Your task to perform on an android device: What's the price of the Galaxy phone on eBay? Image 0: 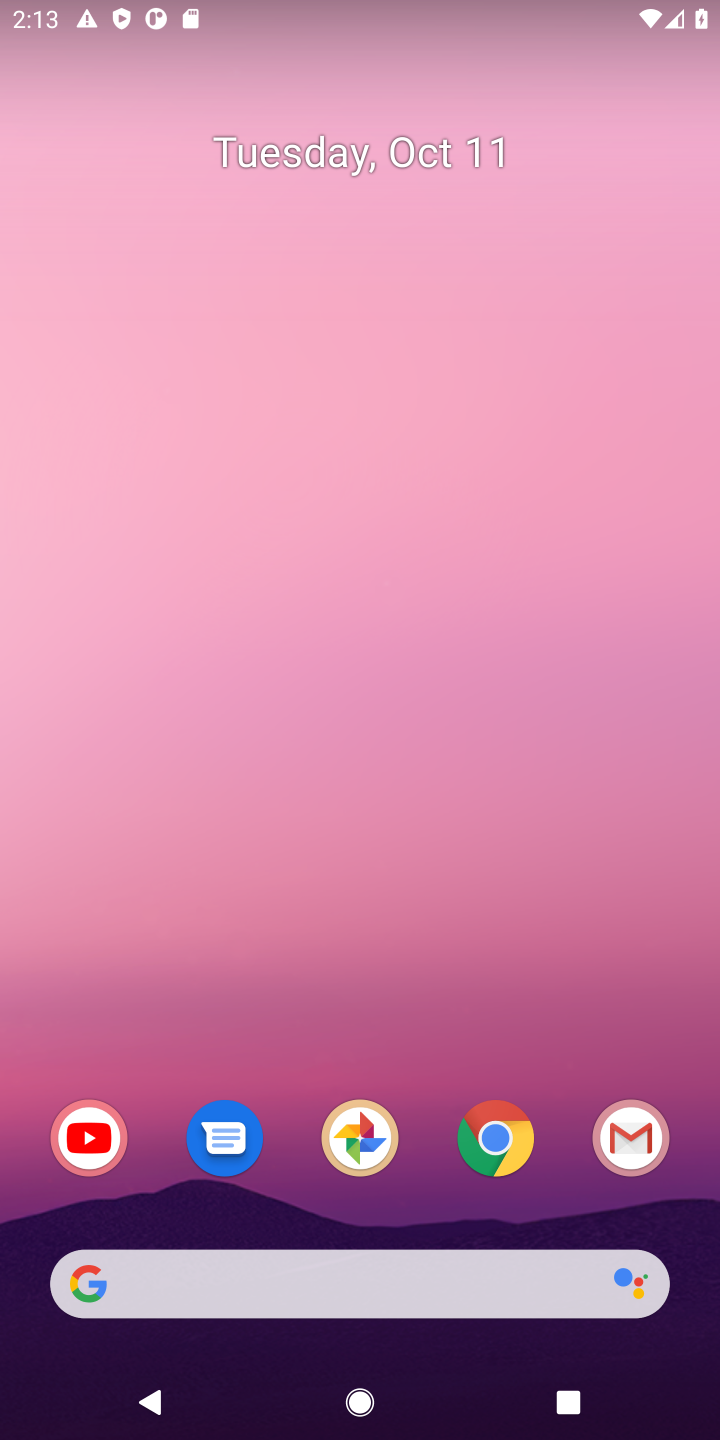
Step 0: click (496, 1119)
Your task to perform on an android device: What's the price of the Galaxy phone on eBay? Image 1: 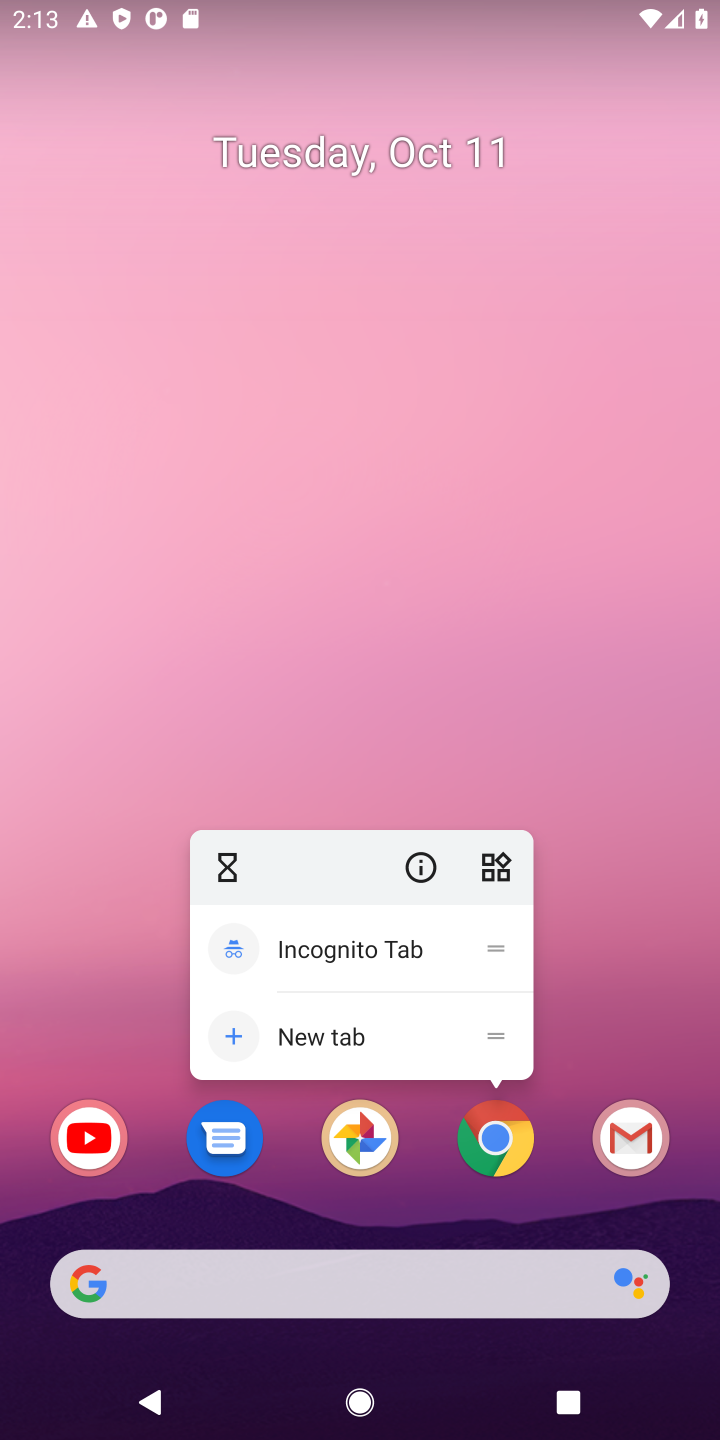
Step 1: click (493, 1129)
Your task to perform on an android device: What's the price of the Galaxy phone on eBay? Image 2: 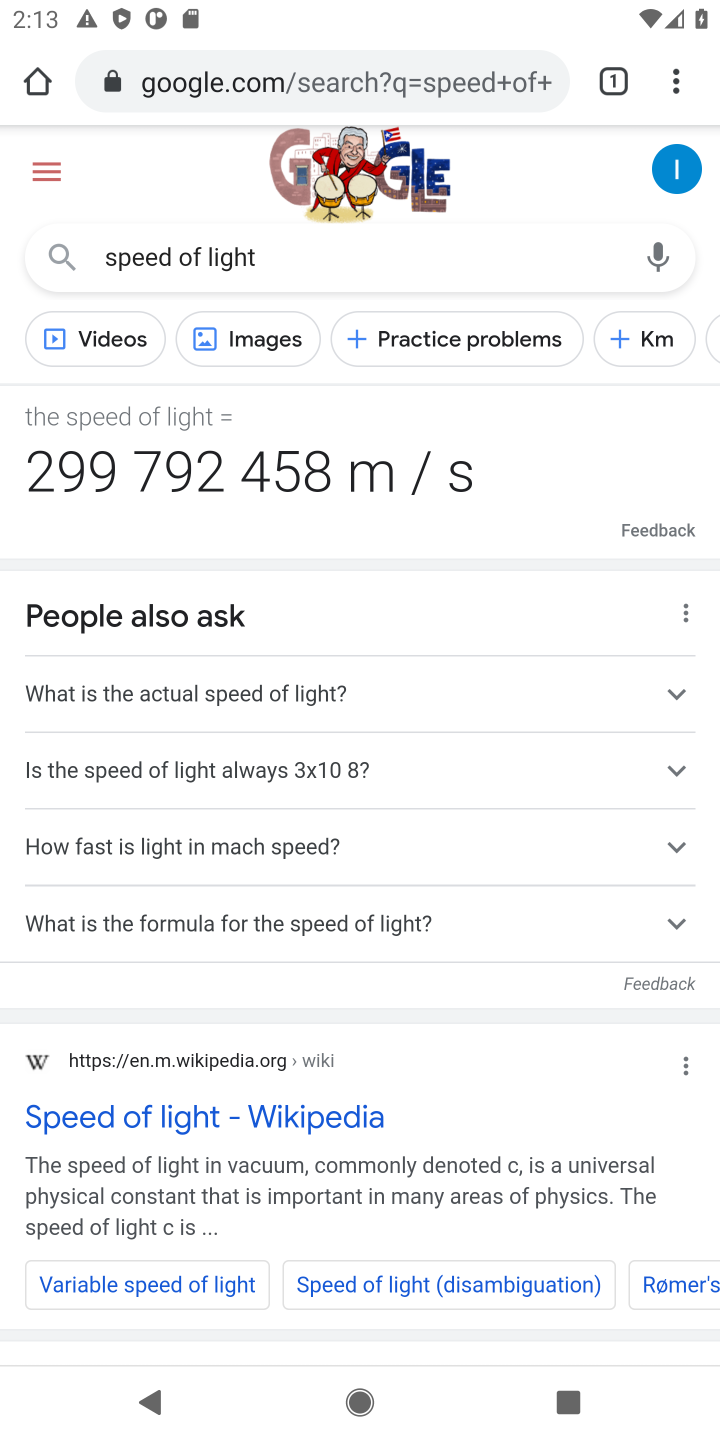
Step 2: click (370, 72)
Your task to perform on an android device: What's the price of the Galaxy phone on eBay? Image 3: 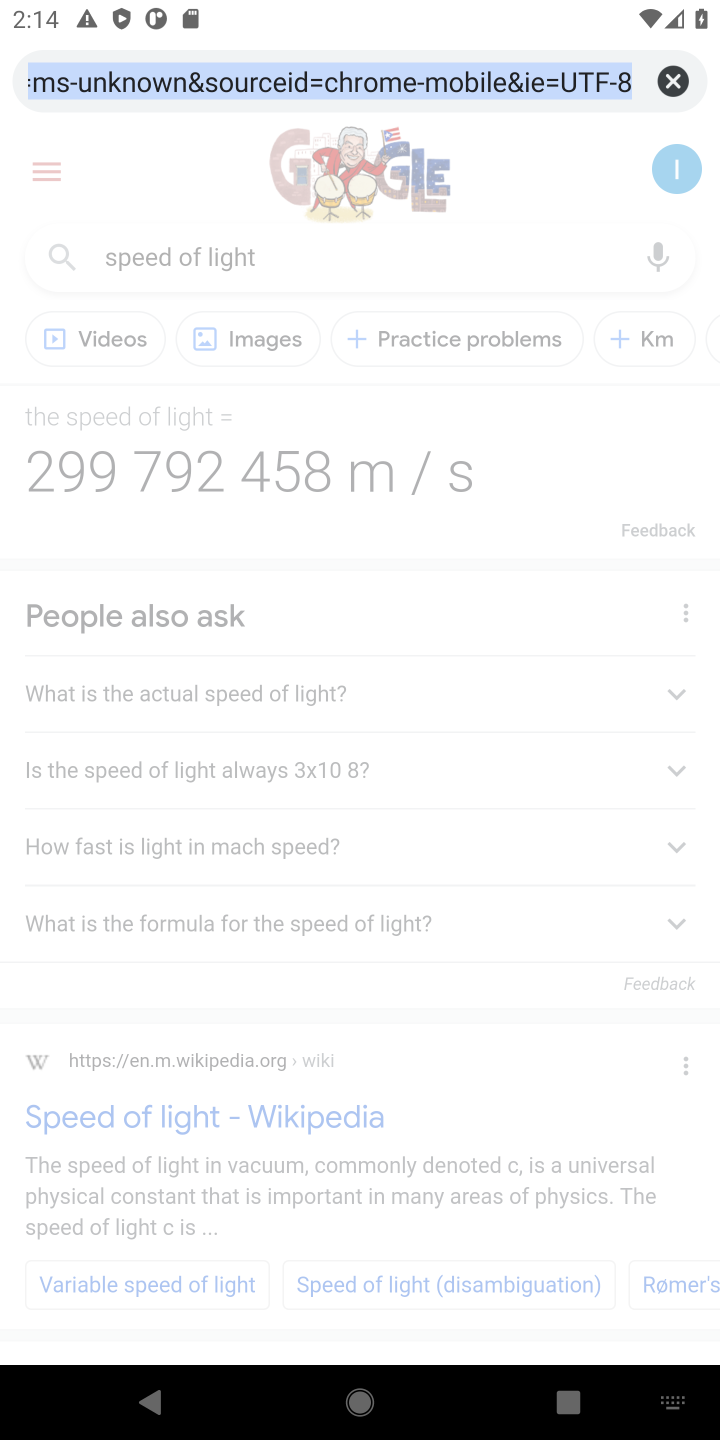
Step 3: type "Galaxy phone on eBay"
Your task to perform on an android device: What's the price of the Galaxy phone on eBay? Image 4: 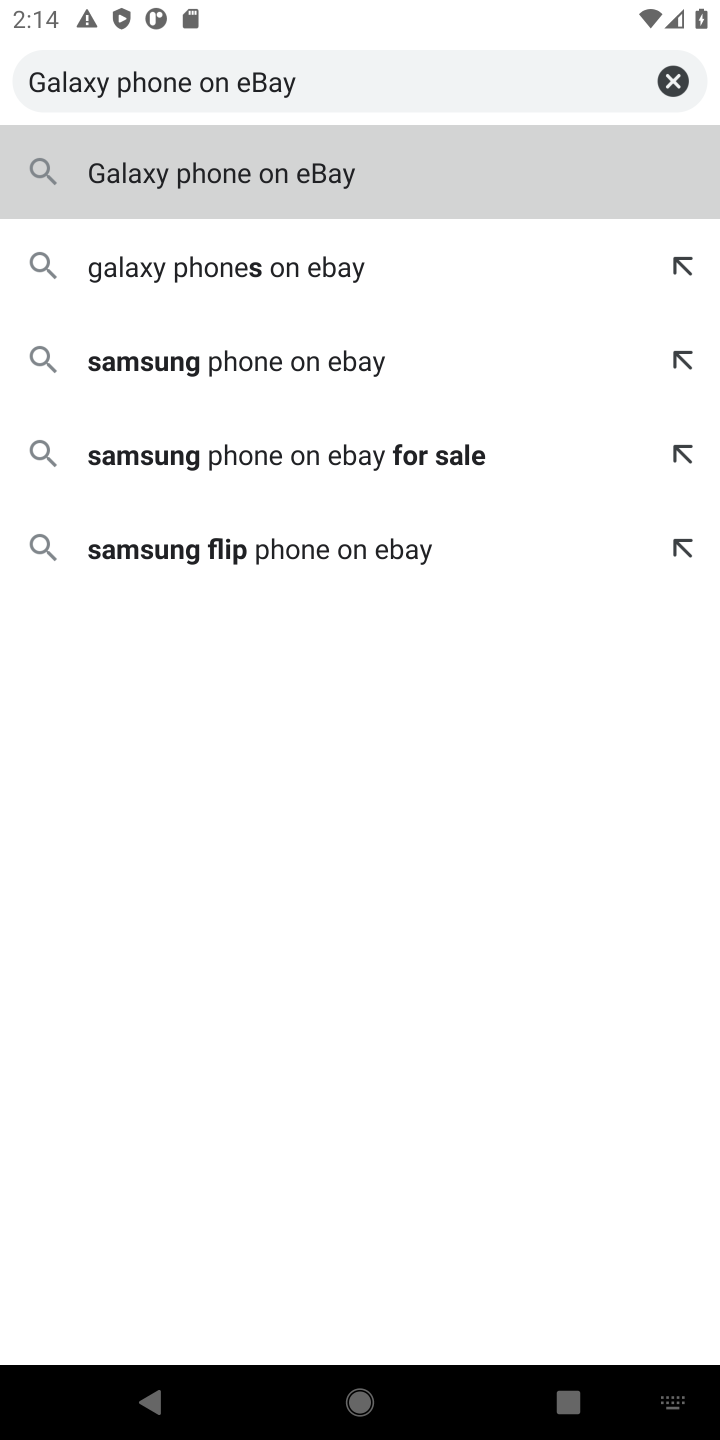
Step 4: click (347, 173)
Your task to perform on an android device: What's the price of the Galaxy phone on eBay? Image 5: 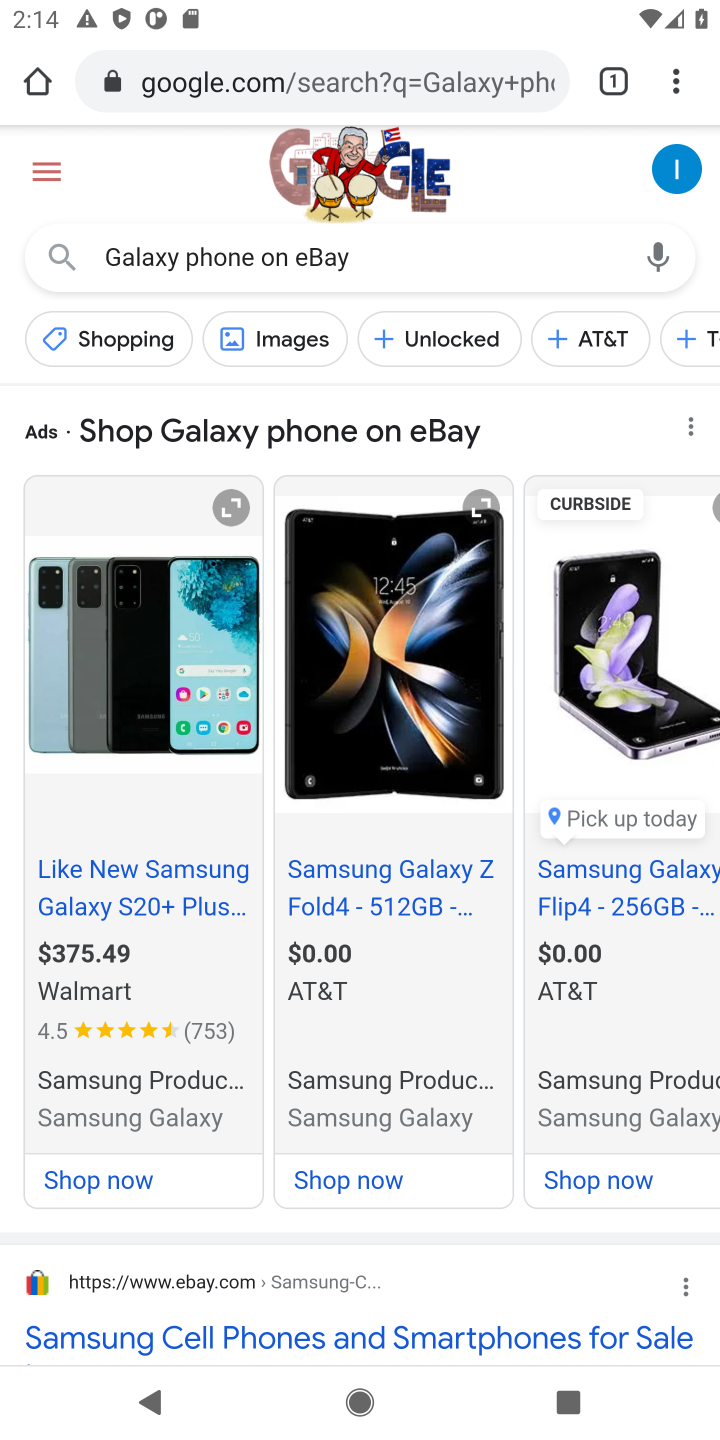
Step 5: task complete